Your task to perform on an android device: turn on data saver in the chrome app Image 0: 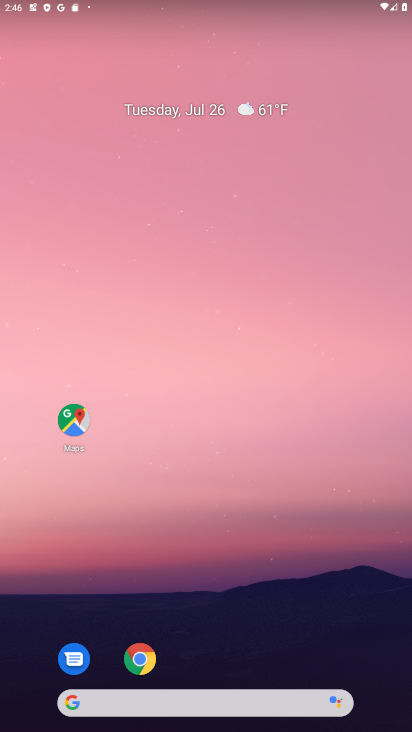
Step 0: drag from (367, 106) to (135, 643)
Your task to perform on an android device: turn on data saver in the chrome app Image 1: 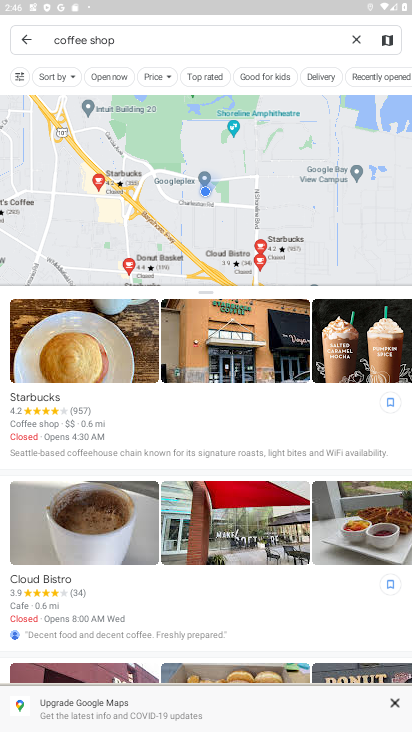
Step 1: press home button
Your task to perform on an android device: turn on data saver in the chrome app Image 2: 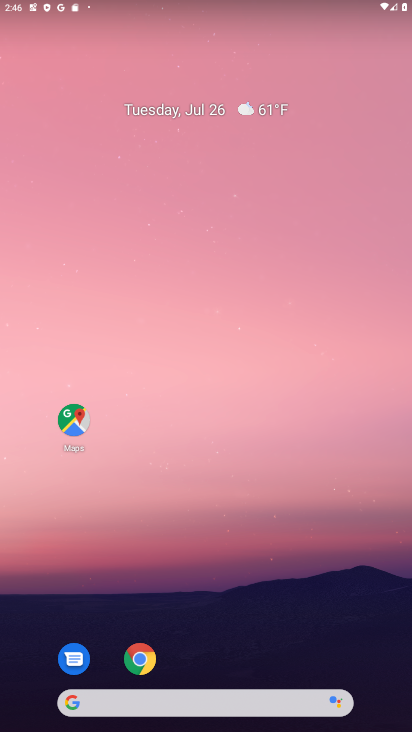
Step 2: click (143, 654)
Your task to perform on an android device: turn on data saver in the chrome app Image 3: 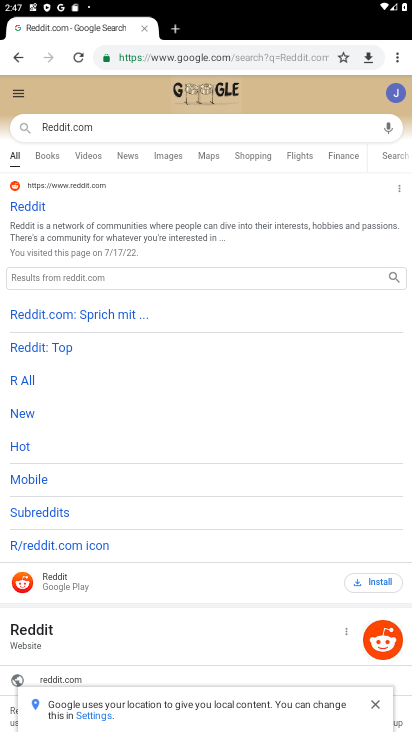
Step 3: click (398, 60)
Your task to perform on an android device: turn on data saver in the chrome app Image 4: 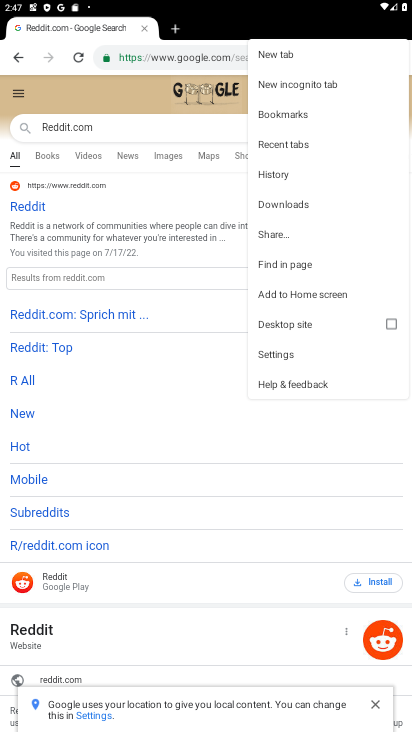
Step 4: click (271, 358)
Your task to perform on an android device: turn on data saver in the chrome app Image 5: 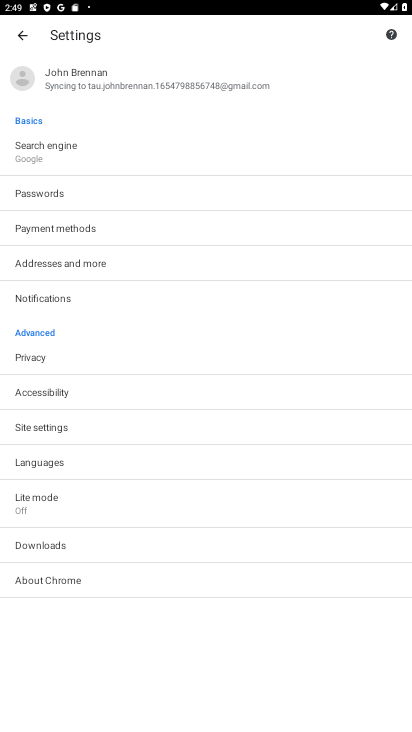
Step 5: click (54, 508)
Your task to perform on an android device: turn on data saver in the chrome app Image 6: 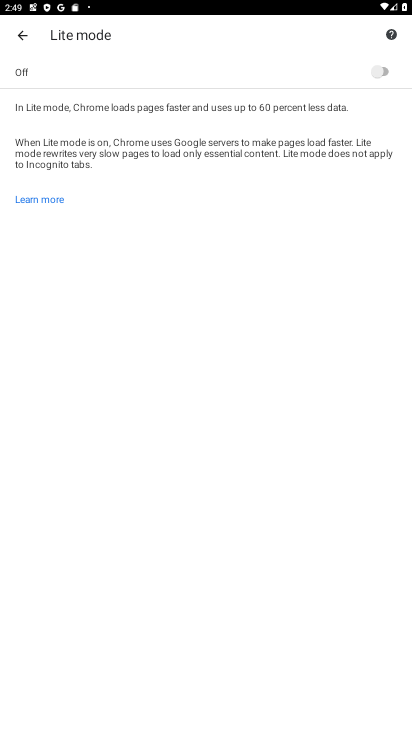
Step 6: click (392, 66)
Your task to perform on an android device: turn on data saver in the chrome app Image 7: 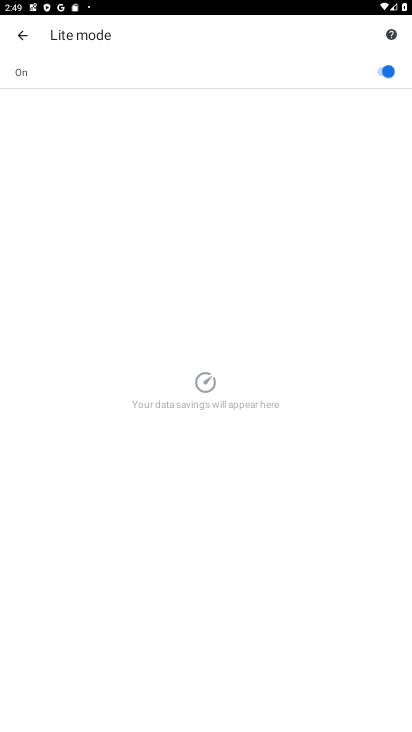
Step 7: task complete